Your task to perform on an android device: open app "Duolingo: language lessons" (install if not already installed) Image 0: 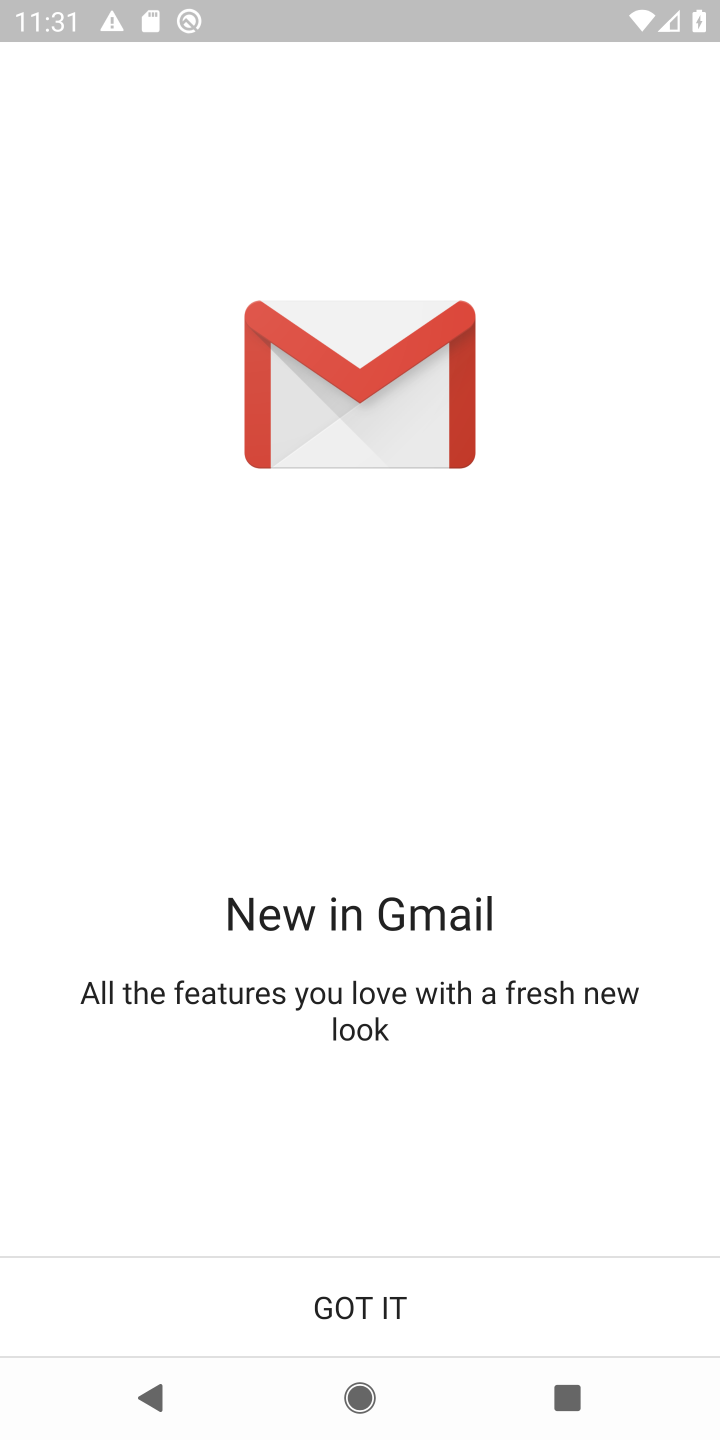
Step 0: press home button
Your task to perform on an android device: open app "Duolingo: language lessons" (install if not already installed) Image 1: 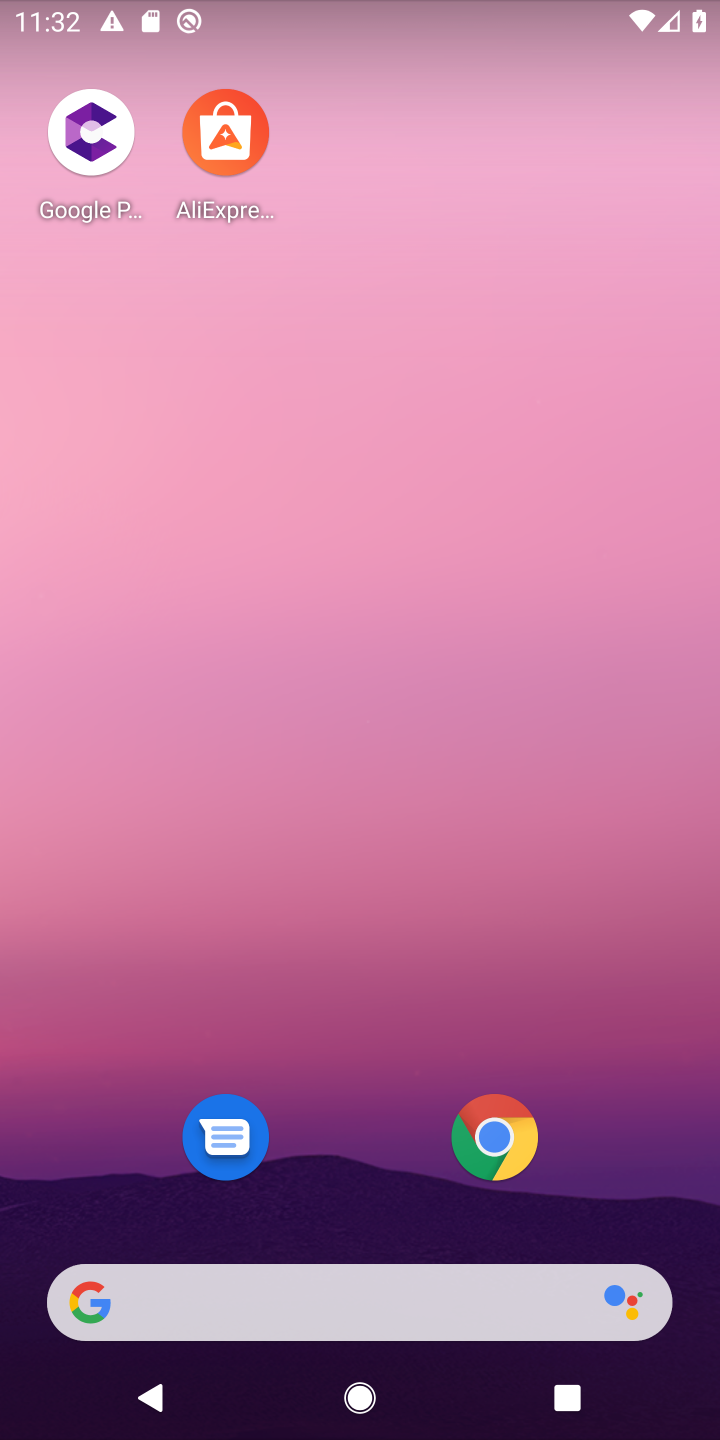
Step 1: drag from (315, 1154) to (364, 212)
Your task to perform on an android device: open app "Duolingo: language lessons" (install if not already installed) Image 2: 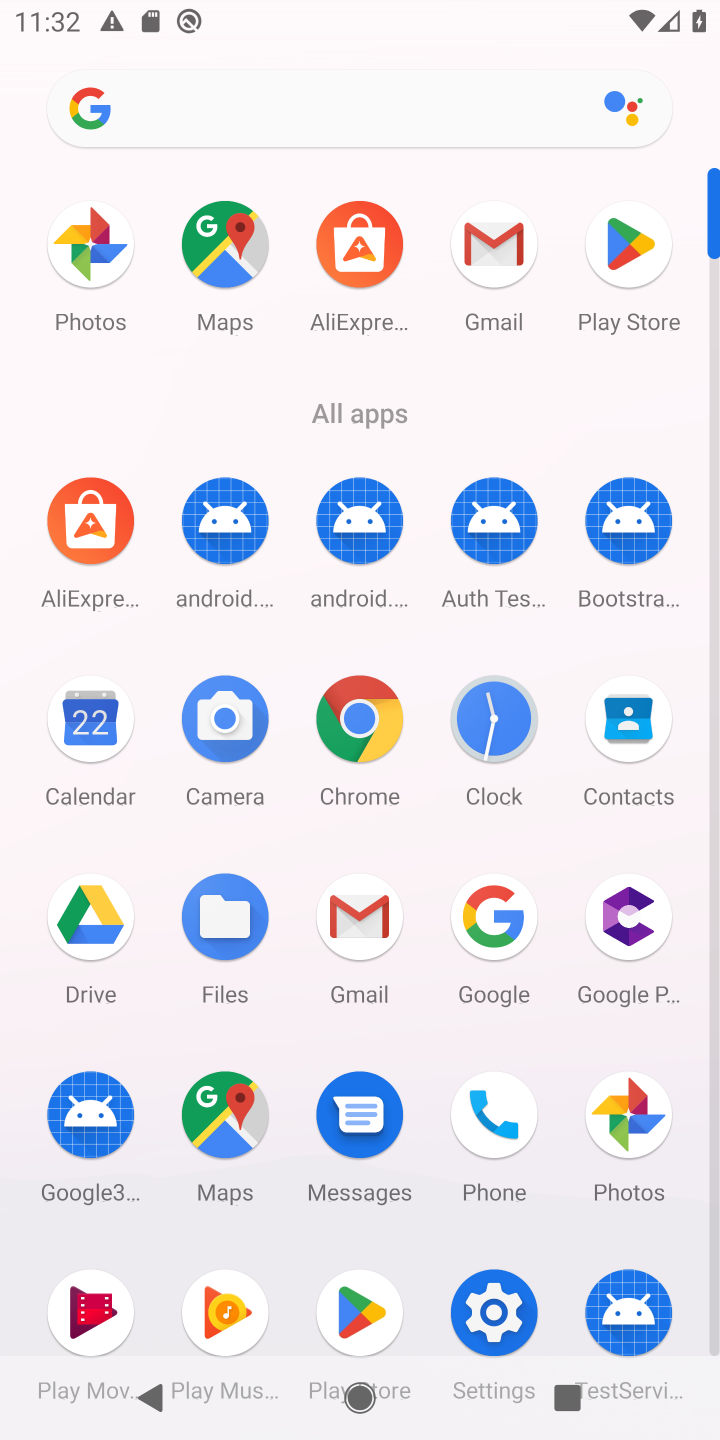
Step 2: click (612, 257)
Your task to perform on an android device: open app "Duolingo: language lessons" (install if not already installed) Image 3: 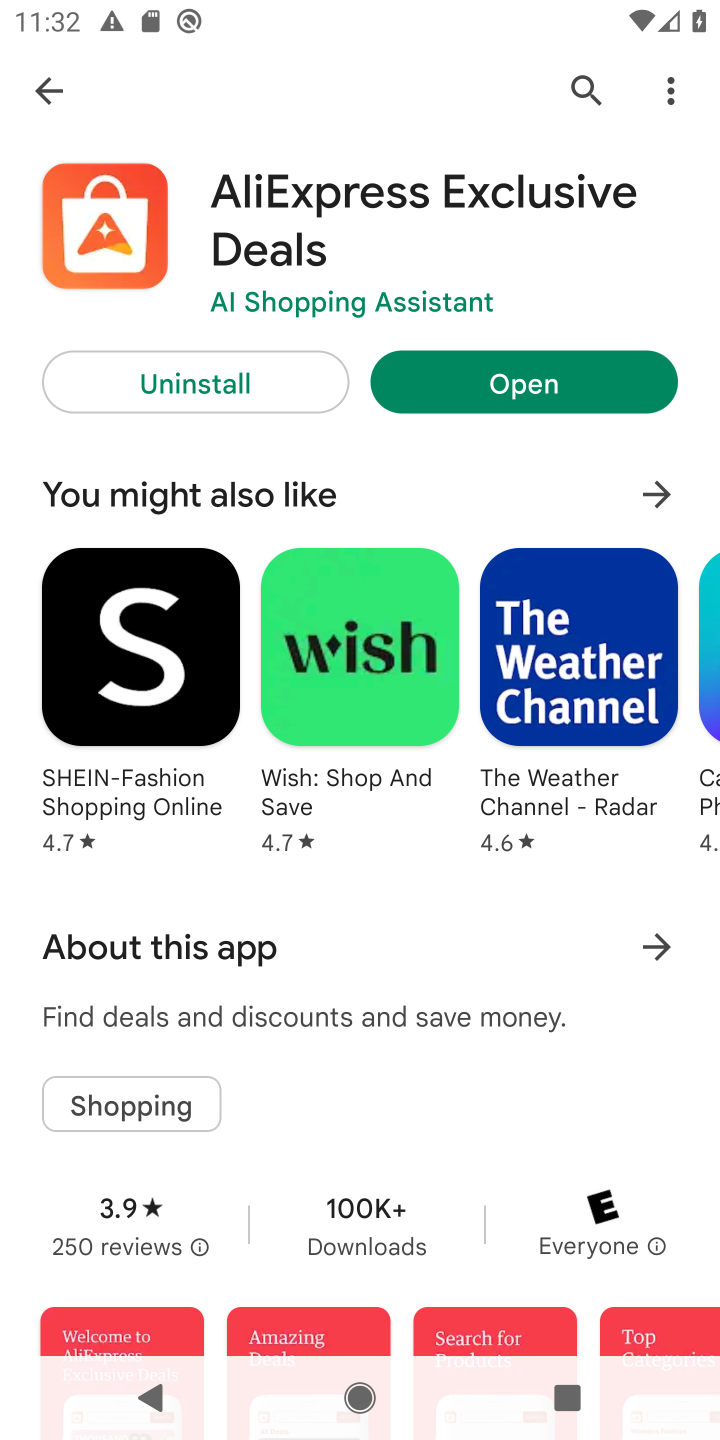
Step 3: click (511, 382)
Your task to perform on an android device: open app "Duolingo: language lessons" (install if not already installed) Image 4: 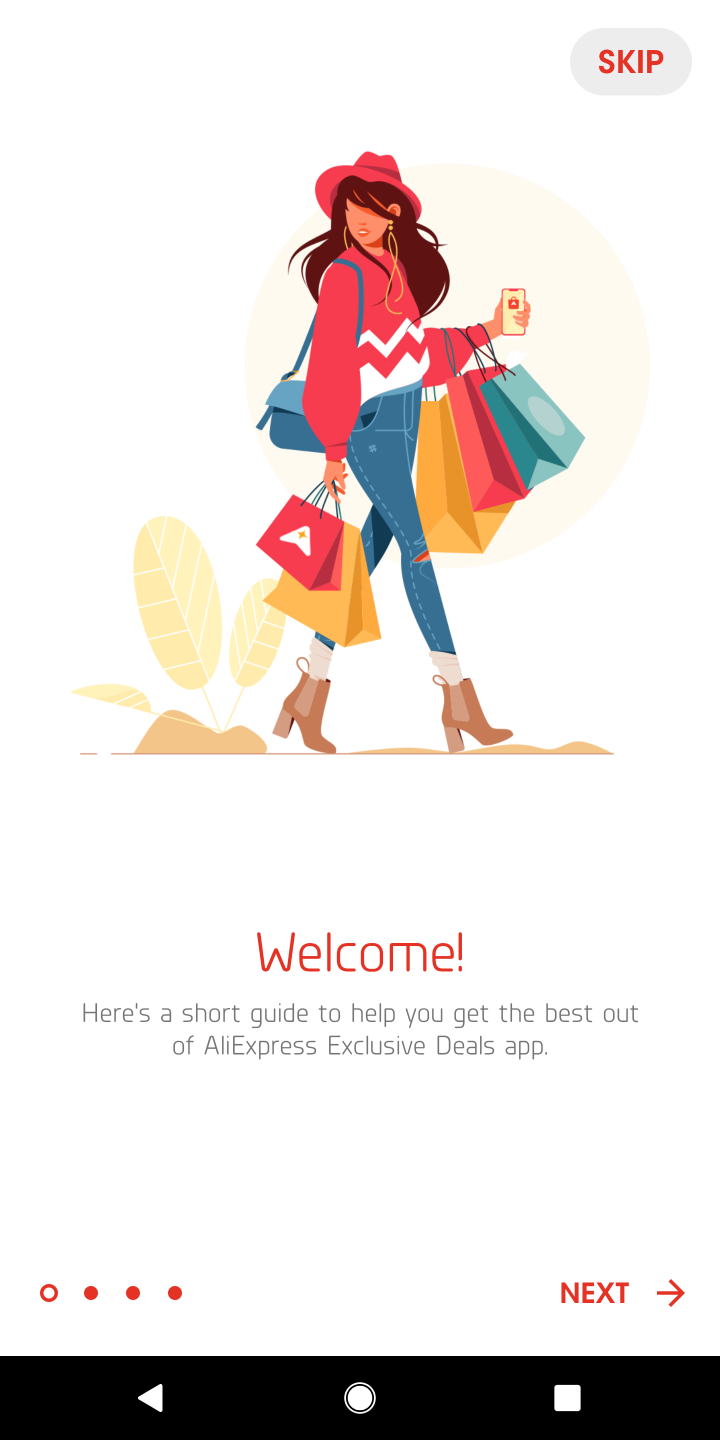
Step 4: task complete